Your task to perform on an android device: turn on bluetooth scan Image 0: 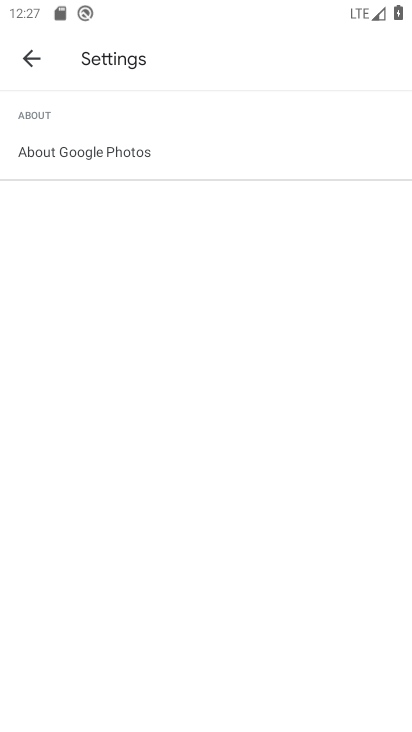
Step 0: press home button
Your task to perform on an android device: turn on bluetooth scan Image 1: 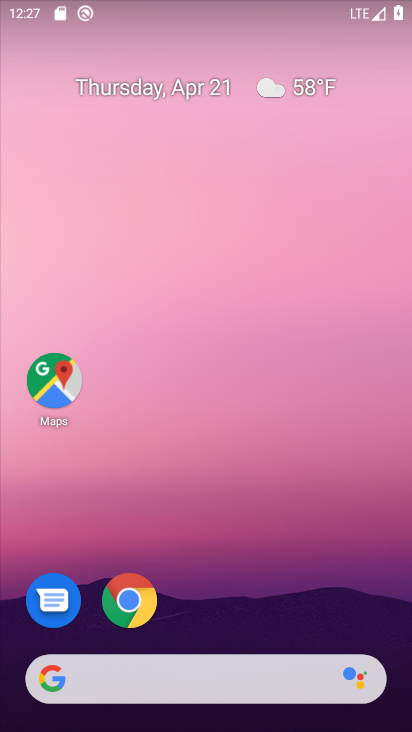
Step 1: drag from (273, 588) to (300, 85)
Your task to perform on an android device: turn on bluetooth scan Image 2: 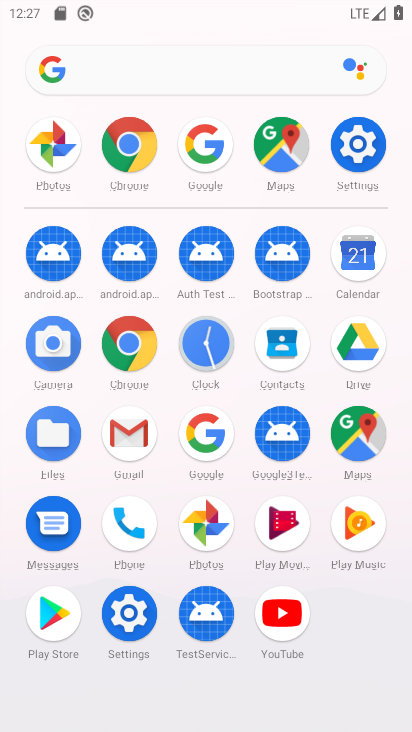
Step 2: click (352, 141)
Your task to perform on an android device: turn on bluetooth scan Image 3: 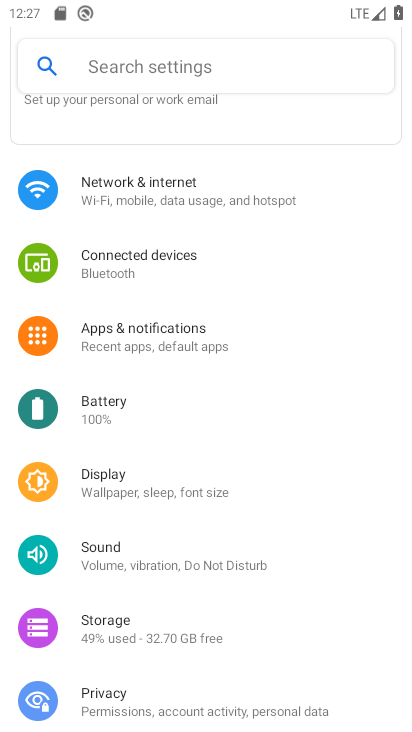
Step 3: drag from (259, 591) to (280, 260)
Your task to perform on an android device: turn on bluetooth scan Image 4: 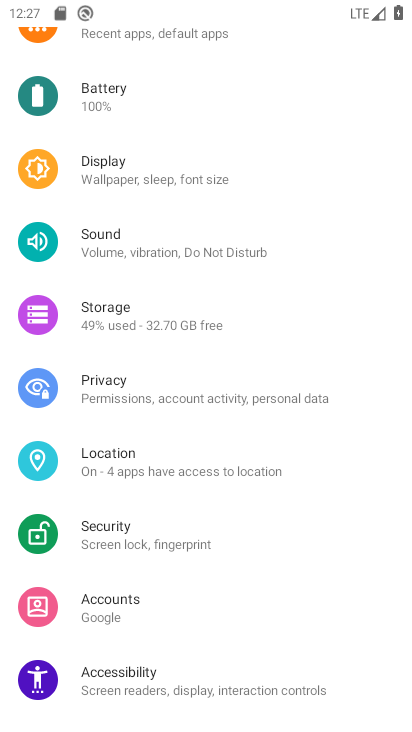
Step 4: click (228, 461)
Your task to perform on an android device: turn on bluetooth scan Image 5: 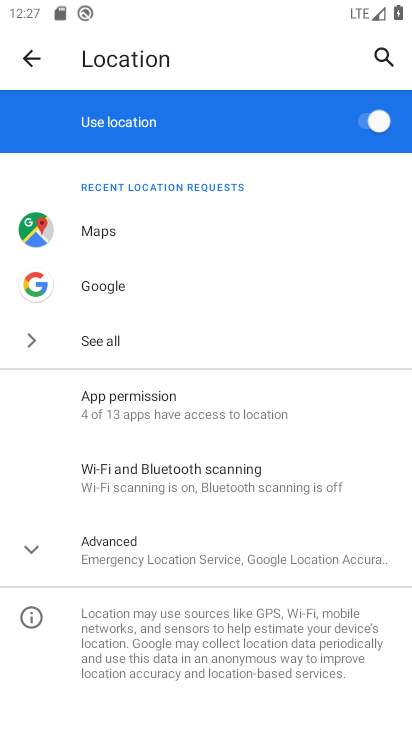
Step 5: click (243, 479)
Your task to perform on an android device: turn on bluetooth scan Image 6: 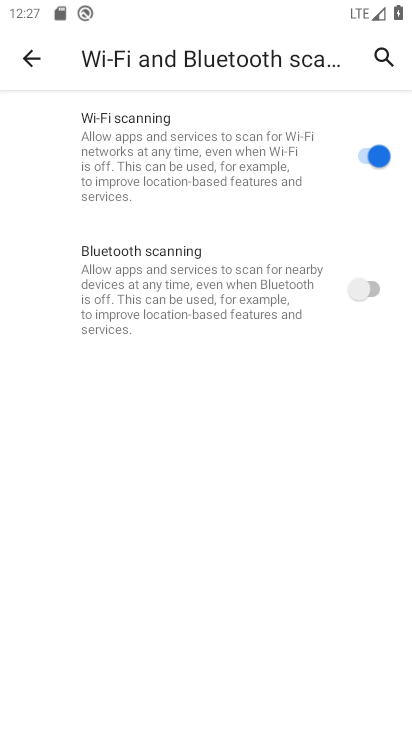
Step 6: click (375, 276)
Your task to perform on an android device: turn on bluetooth scan Image 7: 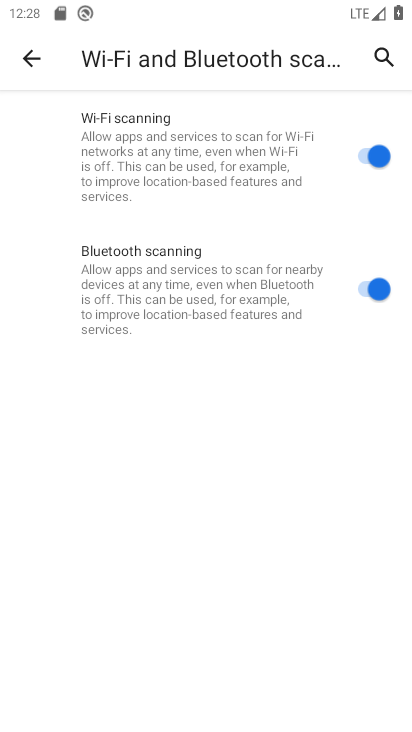
Step 7: task complete